Your task to perform on an android device: add a label to a message in the gmail app Image 0: 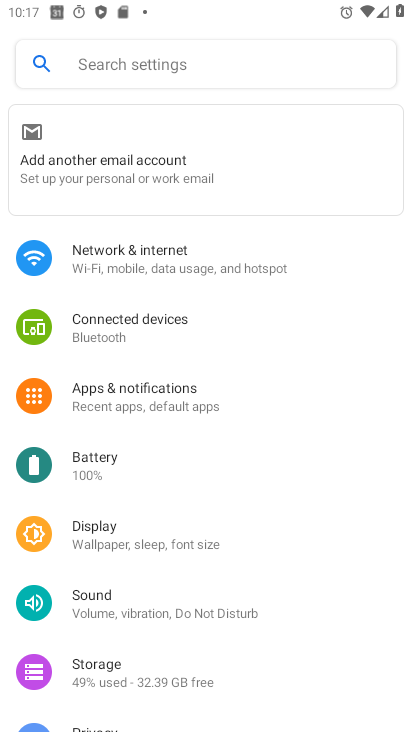
Step 0: click (128, 530)
Your task to perform on an android device: add a label to a message in the gmail app Image 1: 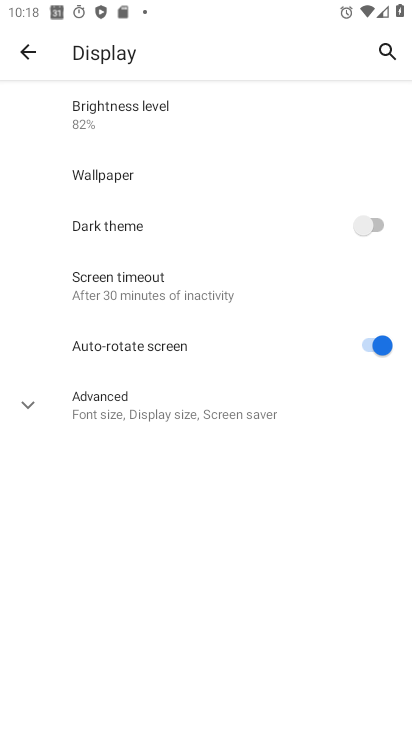
Step 1: press home button
Your task to perform on an android device: add a label to a message in the gmail app Image 2: 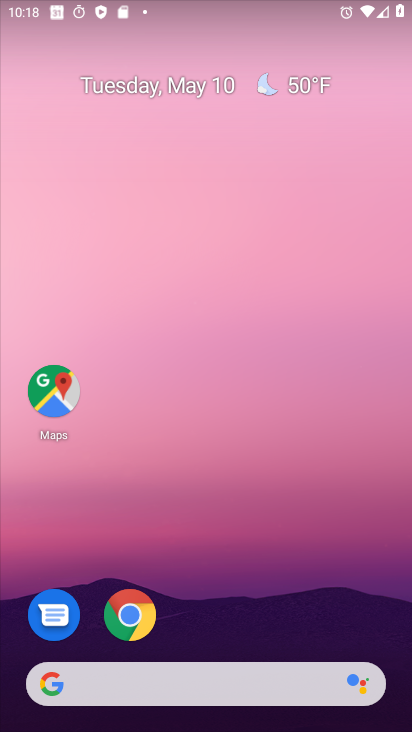
Step 2: drag from (209, 645) to (264, 29)
Your task to perform on an android device: add a label to a message in the gmail app Image 3: 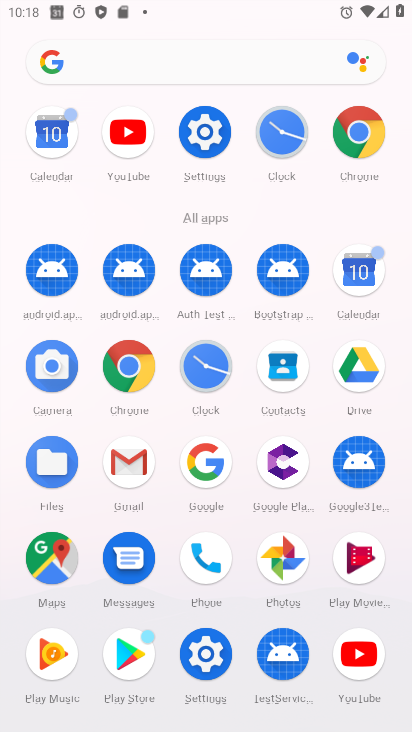
Step 3: click (127, 457)
Your task to perform on an android device: add a label to a message in the gmail app Image 4: 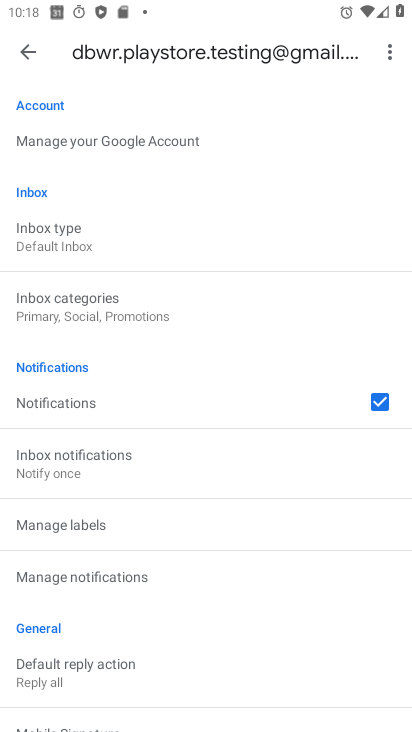
Step 4: click (35, 54)
Your task to perform on an android device: add a label to a message in the gmail app Image 5: 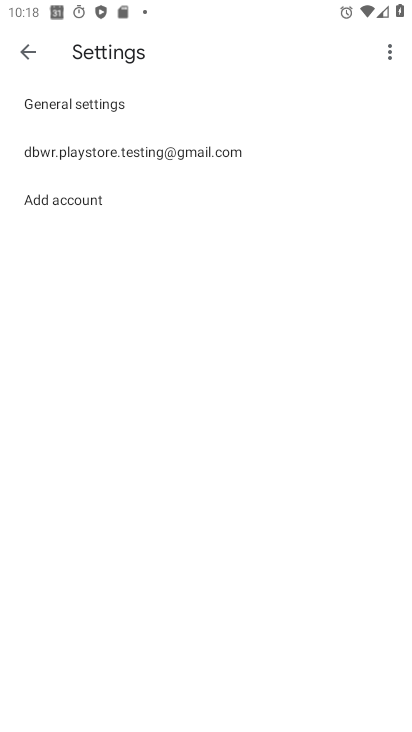
Step 5: click (32, 52)
Your task to perform on an android device: add a label to a message in the gmail app Image 6: 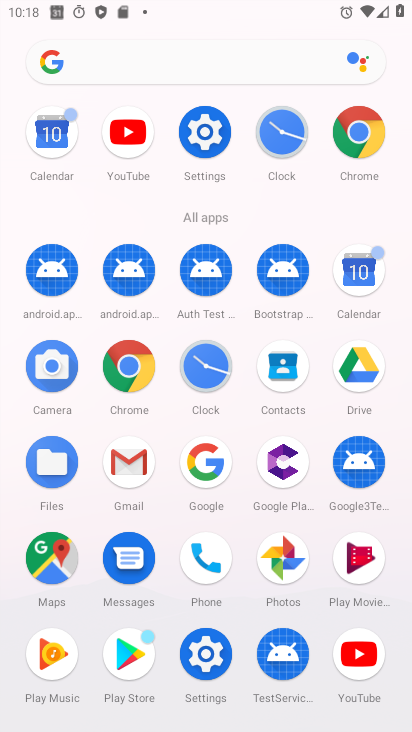
Step 6: click (126, 456)
Your task to perform on an android device: add a label to a message in the gmail app Image 7: 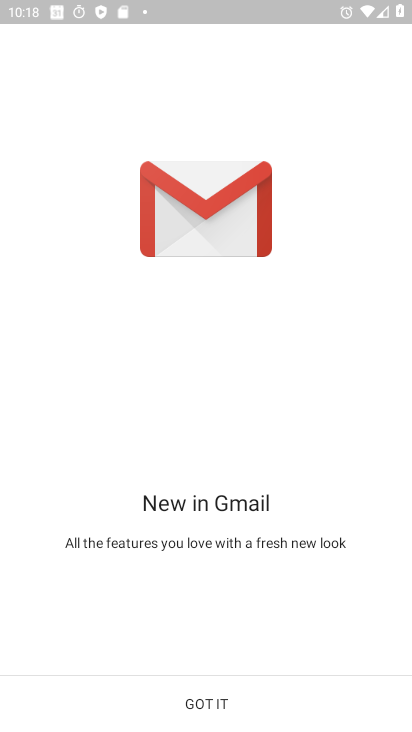
Step 7: click (214, 688)
Your task to perform on an android device: add a label to a message in the gmail app Image 8: 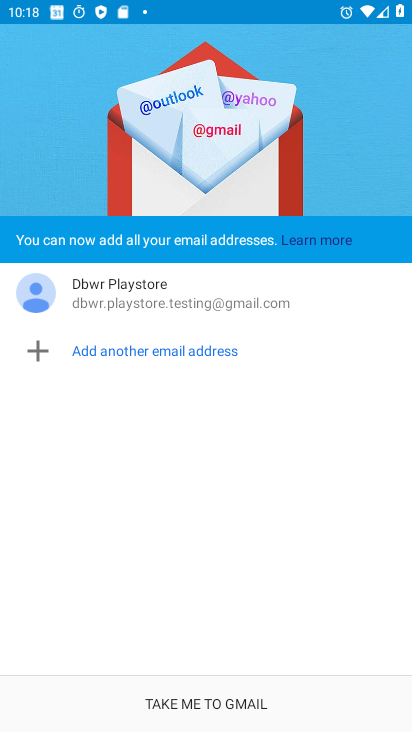
Step 8: click (213, 694)
Your task to perform on an android device: add a label to a message in the gmail app Image 9: 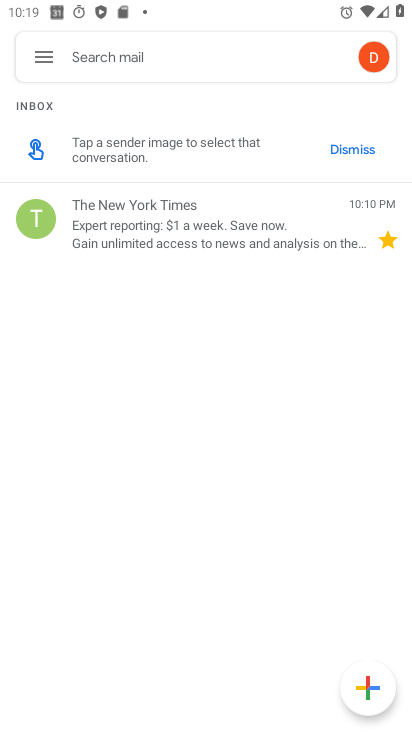
Step 9: click (44, 49)
Your task to perform on an android device: add a label to a message in the gmail app Image 10: 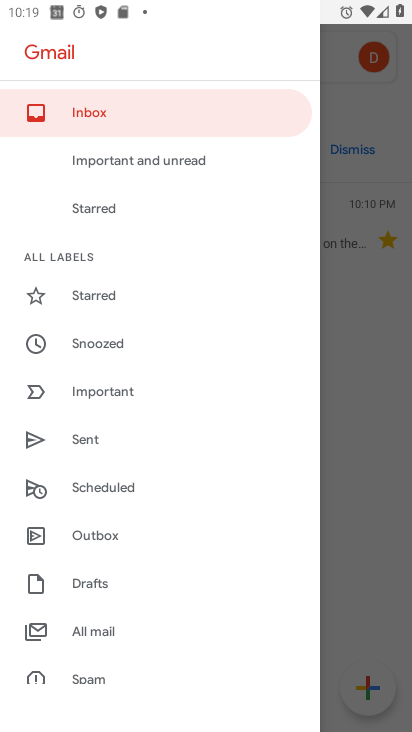
Step 10: click (375, 297)
Your task to perform on an android device: add a label to a message in the gmail app Image 11: 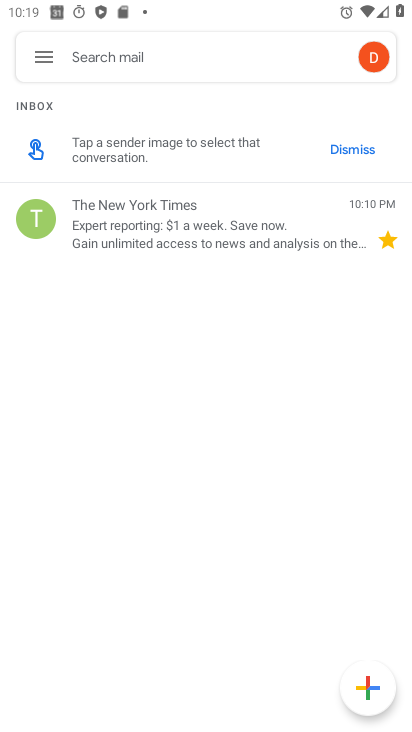
Step 11: click (35, 227)
Your task to perform on an android device: add a label to a message in the gmail app Image 12: 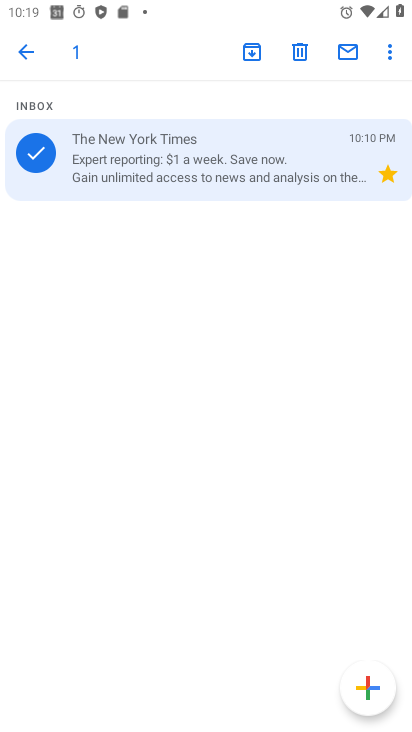
Step 12: click (400, 49)
Your task to perform on an android device: add a label to a message in the gmail app Image 13: 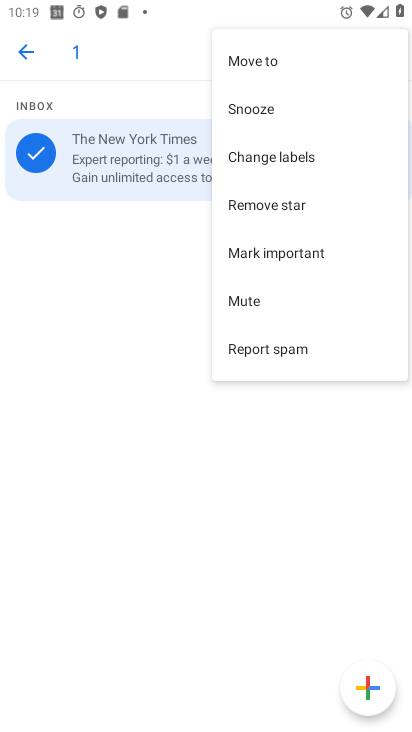
Step 13: click (291, 169)
Your task to perform on an android device: add a label to a message in the gmail app Image 14: 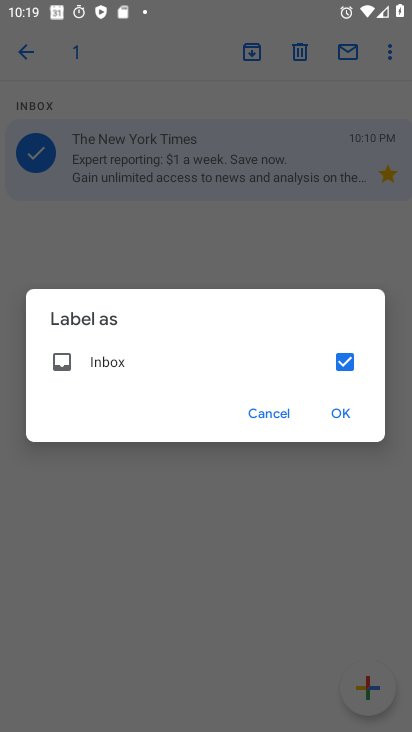
Step 14: click (344, 357)
Your task to perform on an android device: add a label to a message in the gmail app Image 15: 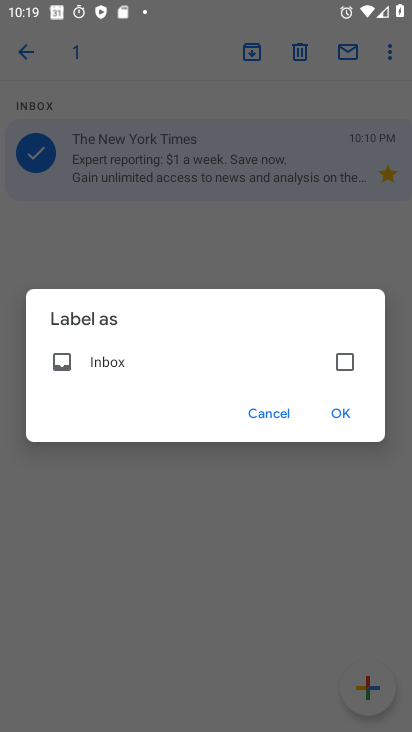
Step 15: click (346, 410)
Your task to perform on an android device: add a label to a message in the gmail app Image 16: 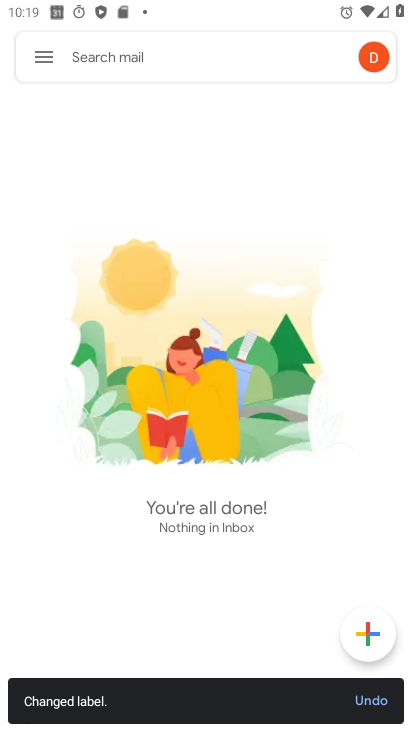
Step 16: task complete